Your task to perform on an android device: Go to ESPN.com Image 0: 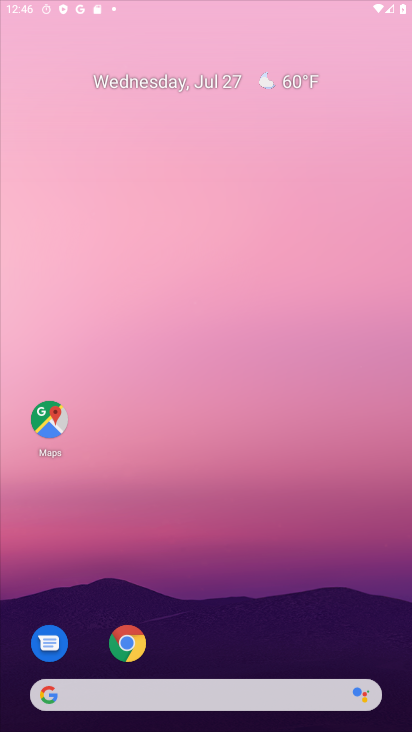
Step 0: drag from (311, 569) to (353, 116)
Your task to perform on an android device: Go to ESPN.com Image 1: 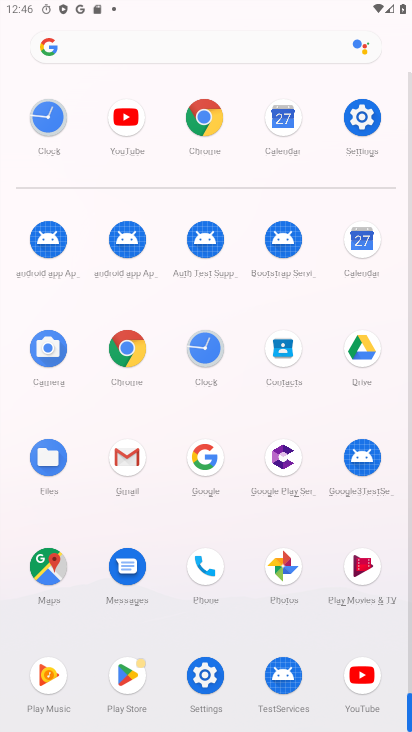
Step 1: click (153, 42)
Your task to perform on an android device: Go to ESPN.com Image 2: 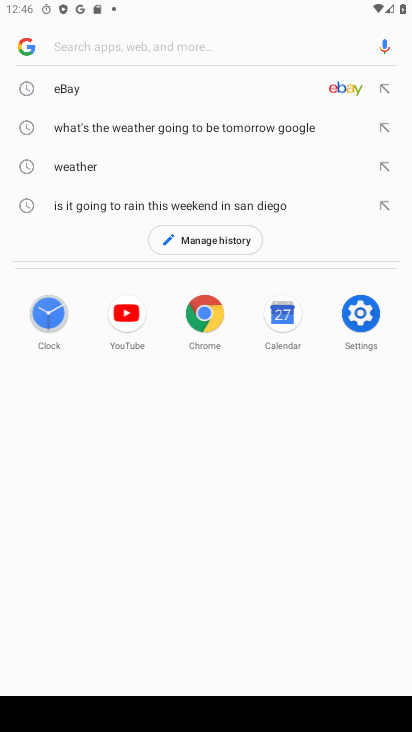
Step 2: type "ESPN.com"
Your task to perform on an android device: Go to ESPN.com Image 3: 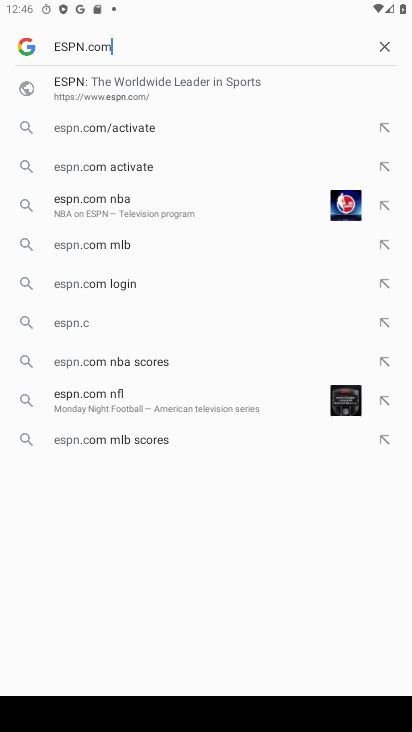
Step 3: type ""
Your task to perform on an android device: Go to ESPN.com Image 4: 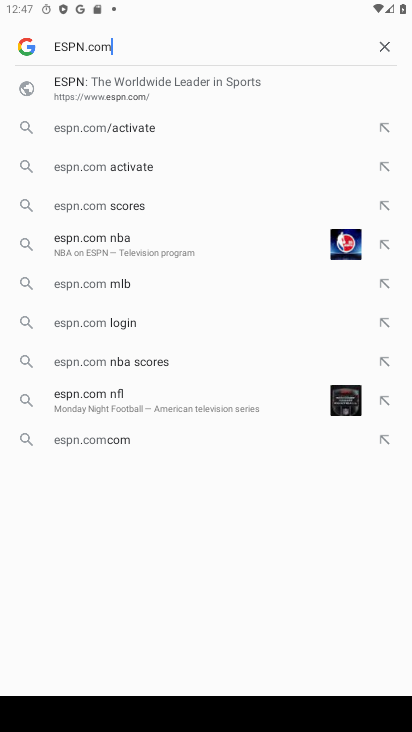
Step 4: click (92, 86)
Your task to perform on an android device: Go to ESPN.com Image 5: 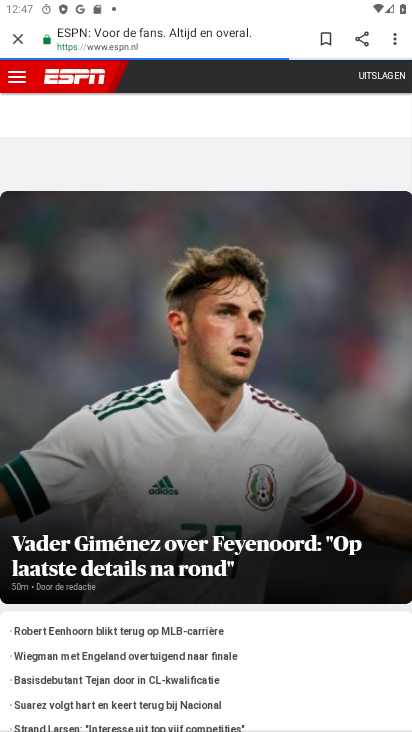
Step 5: task complete